Your task to perform on an android device: see tabs open on other devices in the chrome app Image 0: 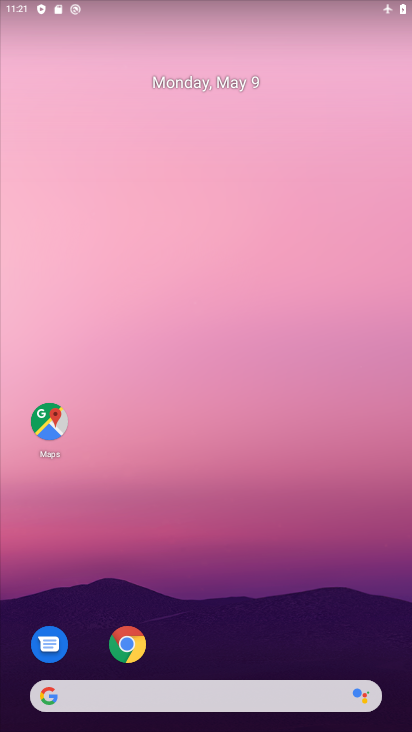
Step 0: click (137, 640)
Your task to perform on an android device: see tabs open on other devices in the chrome app Image 1: 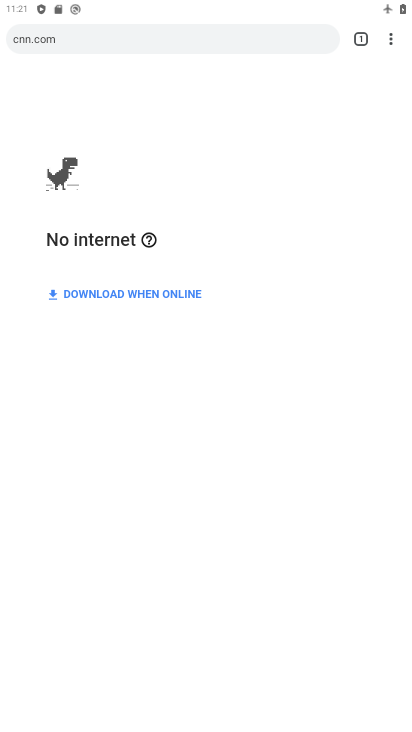
Step 1: task complete